Your task to perform on an android device: What's on my calendar tomorrow? Image 0: 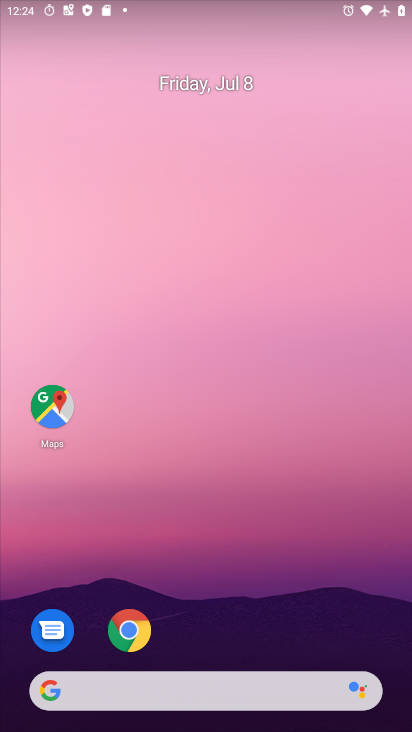
Step 0: drag from (234, 613) to (211, 40)
Your task to perform on an android device: What's on my calendar tomorrow? Image 1: 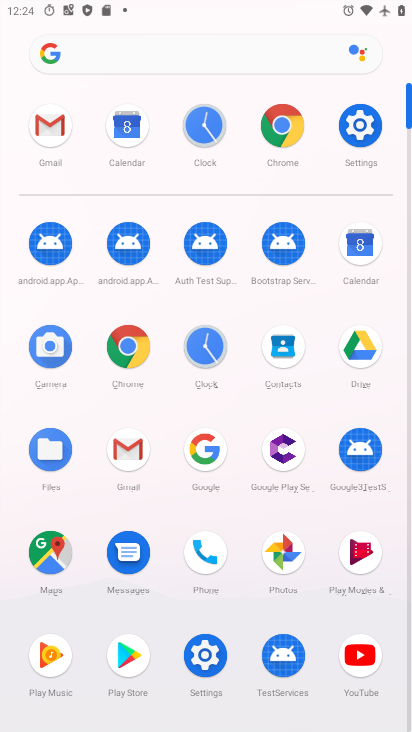
Step 1: click (339, 256)
Your task to perform on an android device: What's on my calendar tomorrow? Image 2: 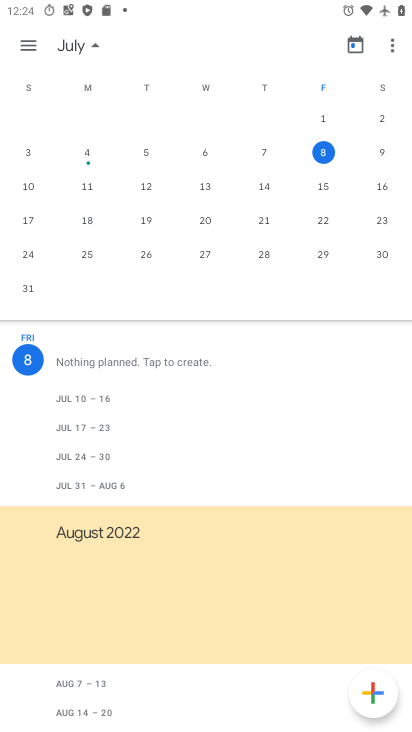
Step 2: click (386, 150)
Your task to perform on an android device: What's on my calendar tomorrow? Image 3: 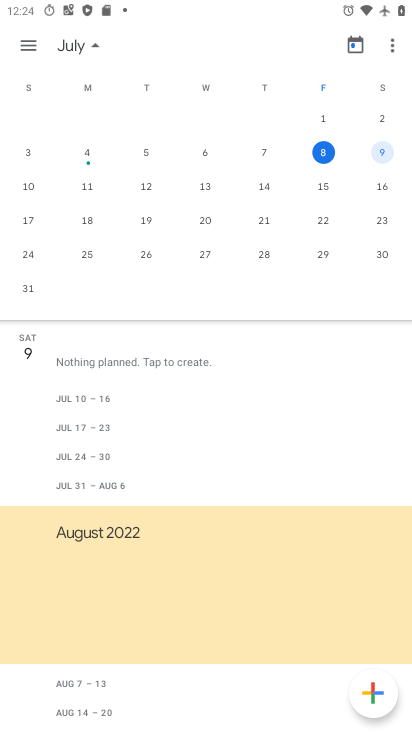
Step 3: click (378, 151)
Your task to perform on an android device: What's on my calendar tomorrow? Image 4: 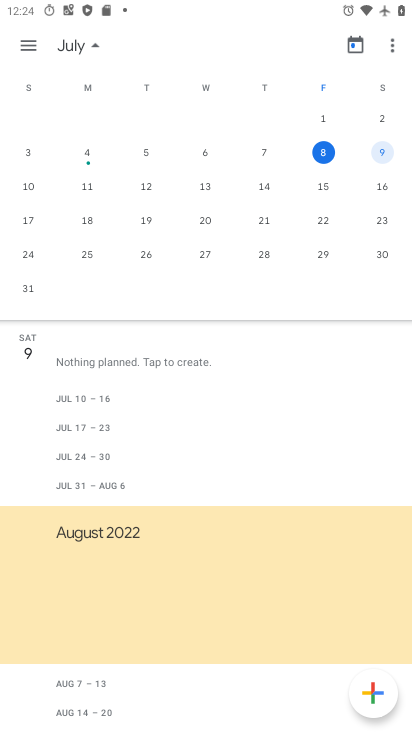
Step 4: task complete